Your task to perform on an android device: turn on showing notifications on the lock screen Image 0: 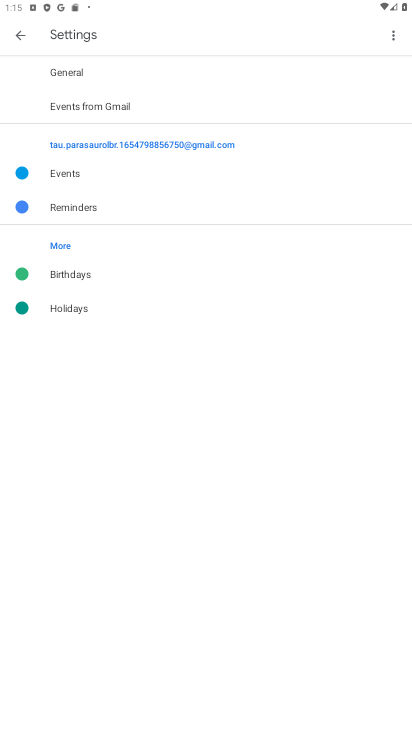
Step 0: press home button
Your task to perform on an android device: turn on showing notifications on the lock screen Image 1: 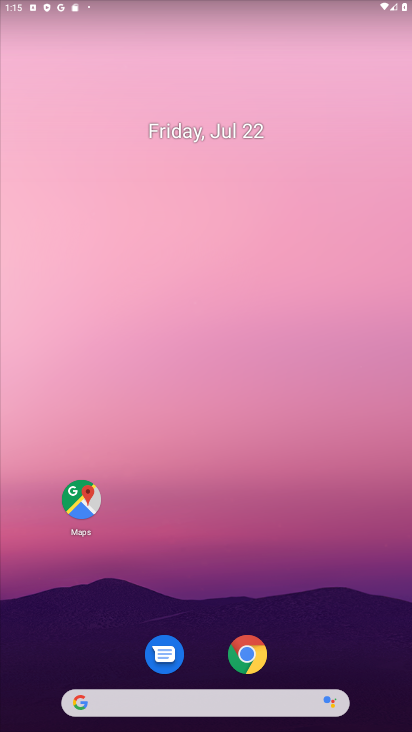
Step 1: drag from (246, 715) to (411, 70)
Your task to perform on an android device: turn on showing notifications on the lock screen Image 2: 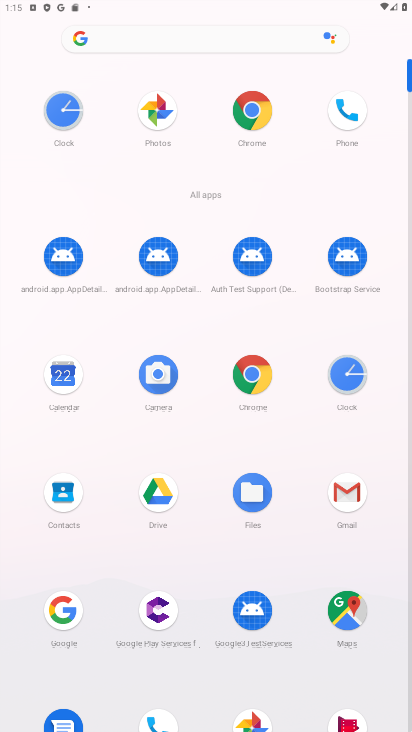
Step 2: drag from (204, 534) to (223, 282)
Your task to perform on an android device: turn on showing notifications on the lock screen Image 3: 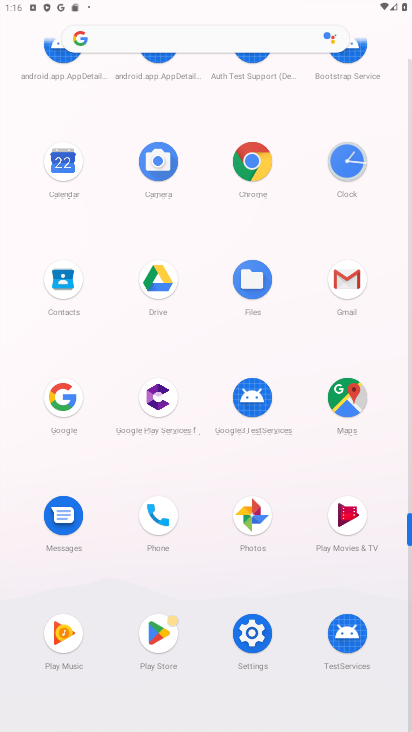
Step 3: click (247, 634)
Your task to perform on an android device: turn on showing notifications on the lock screen Image 4: 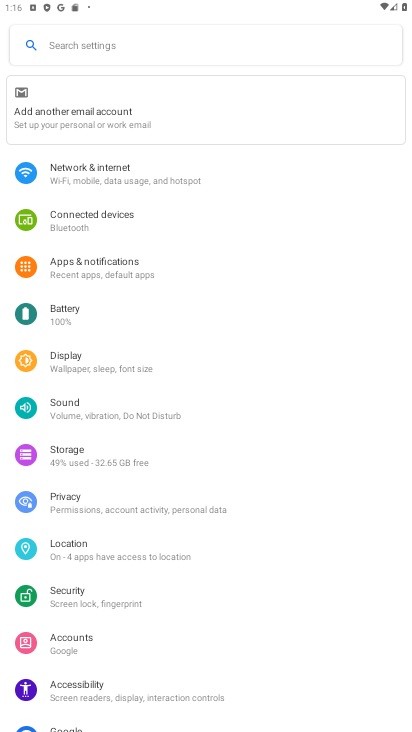
Step 4: click (126, 44)
Your task to perform on an android device: turn on showing notifications on the lock screen Image 5: 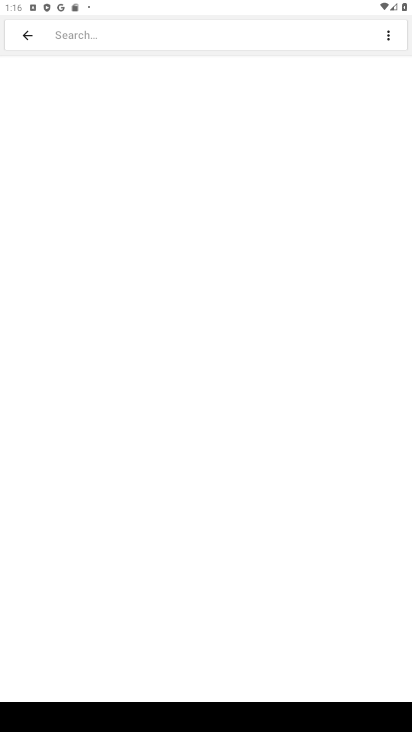
Step 5: drag from (376, 719) to (411, 552)
Your task to perform on an android device: turn on showing notifications on the lock screen Image 6: 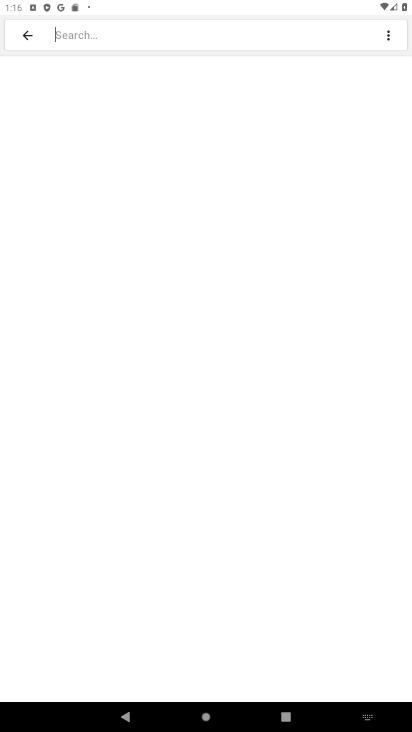
Step 6: click (373, 721)
Your task to perform on an android device: turn on showing notifications on the lock screen Image 7: 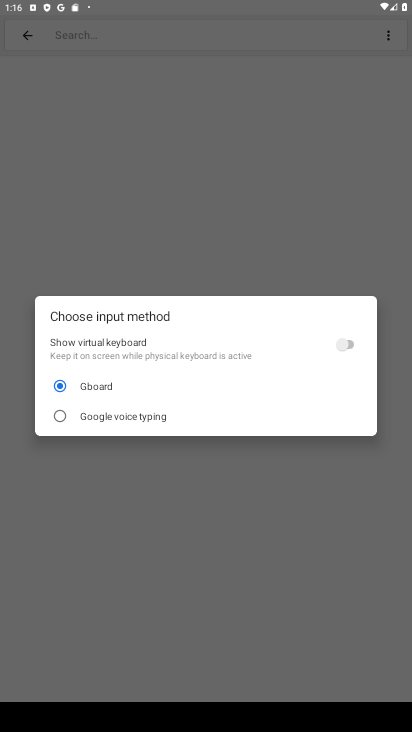
Step 7: click (341, 345)
Your task to perform on an android device: turn on showing notifications on the lock screen Image 8: 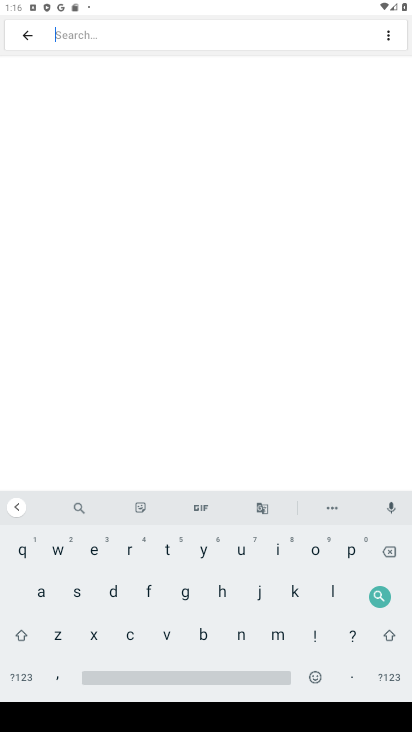
Step 8: click (235, 639)
Your task to perform on an android device: turn on showing notifications on the lock screen Image 9: 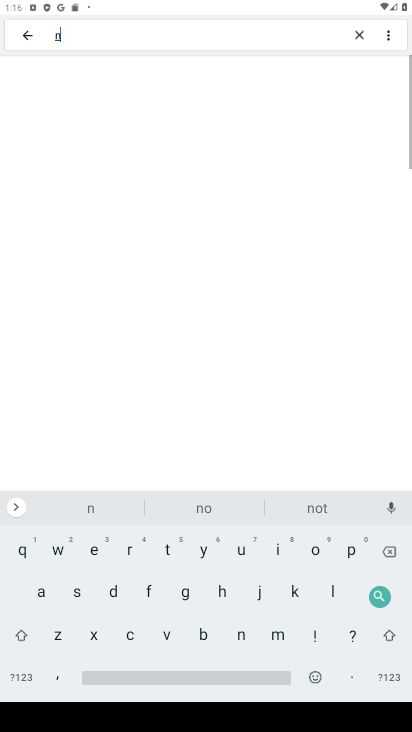
Step 9: click (318, 551)
Your task to perform on an android device: turn on showing notifications on the lock screen Image 10: 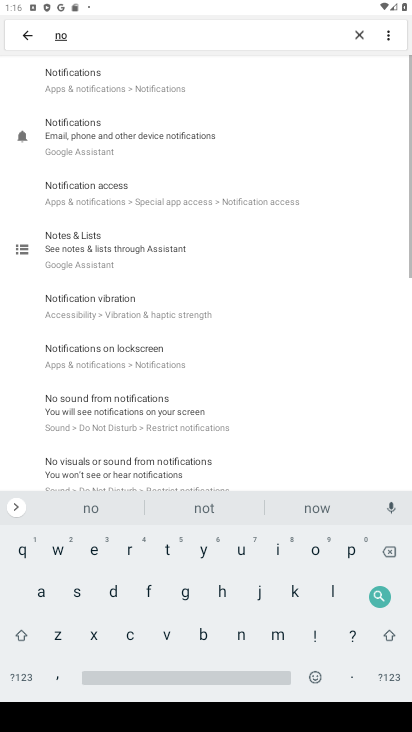
Step 10: click (143, 97)
Your task to perform on an android device: turn on showing notifications on the lock screen Image 11: 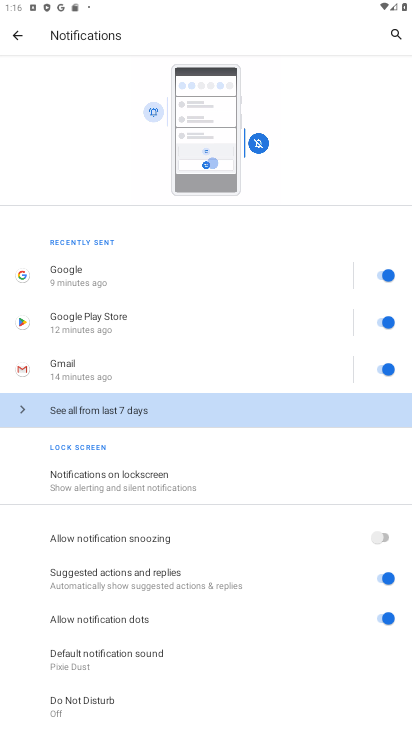
Step 11: click (154, 476)
Your task to perform on an android device: turn on showing notifications on the lock screen Image 12: 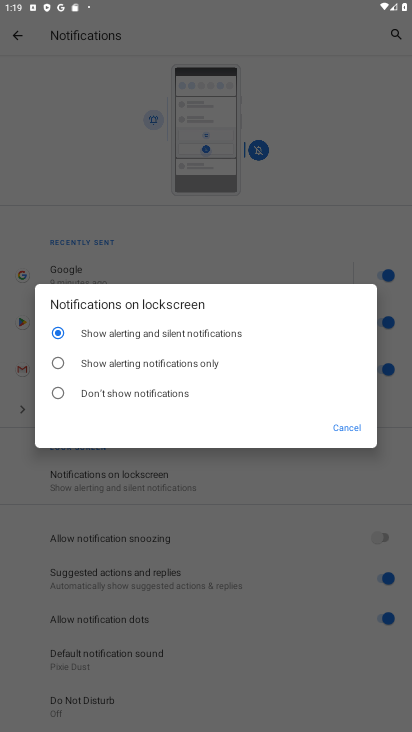
Step 12: task complete